Your task to perform on an android device: Open network settings Image 0: 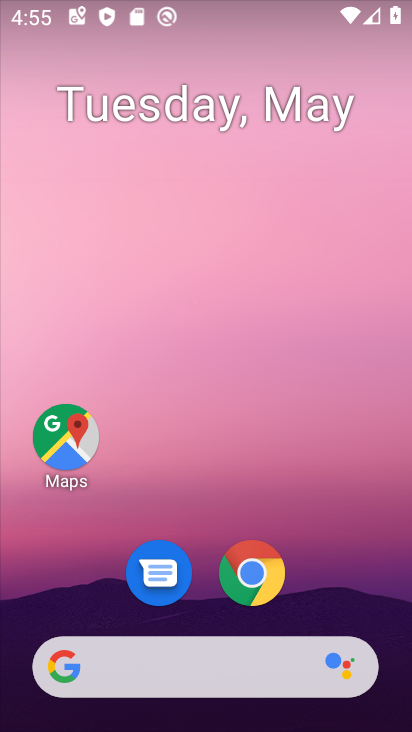
Step 0: drag from (225, 9) to (227, 549)
Your task to perform on an android device: Open network settings Image 1: 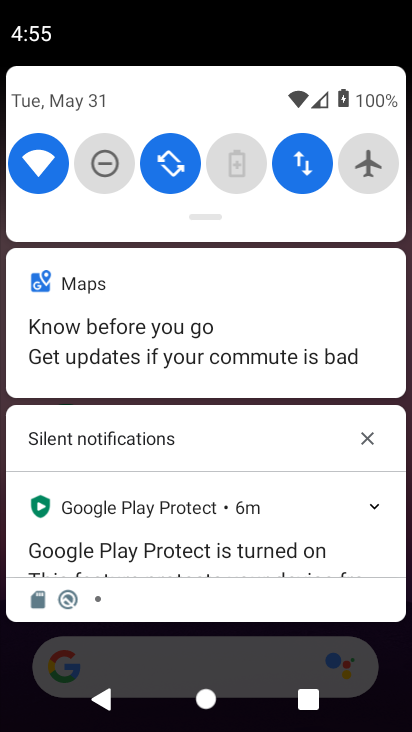
Step 1: click (293, 159)
Your task to perform on an android device: Open network settings Image 2: 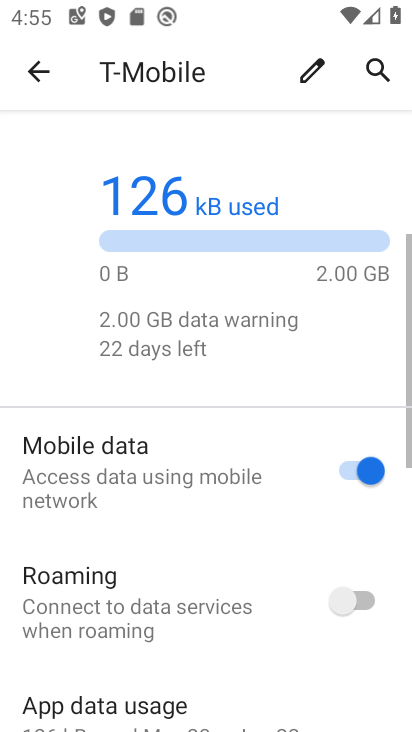
Step 2: task complete